Your task to perform on an android device: Go to notification settings Image 0: 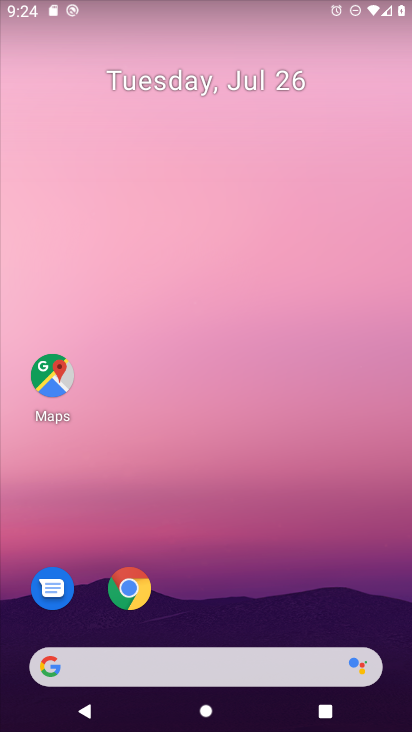
Step 0: drag from (165, 685) to (272, 114)
Your task to perform on an android device: Go to notification settings Image 1: 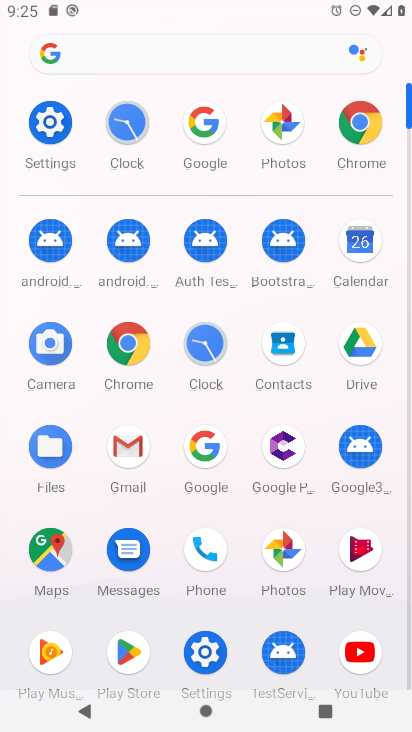
Step 1: click (58, 133)
Your task to perform on an android device: Go to notification settings Image 2: 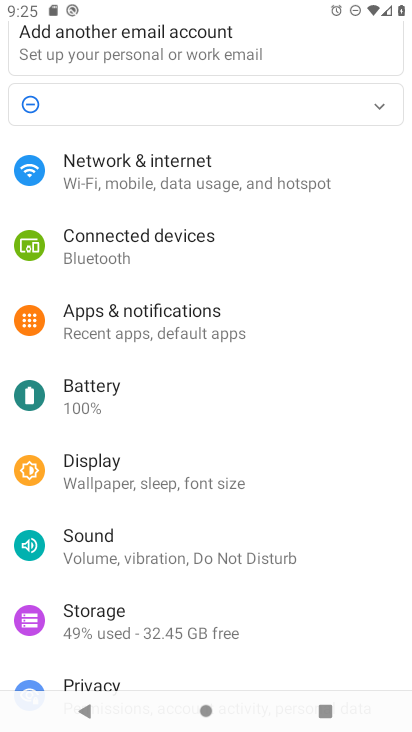
Step 2: click (185, 335)
Your task to perform on an android device: Go to notification settings Image 3: 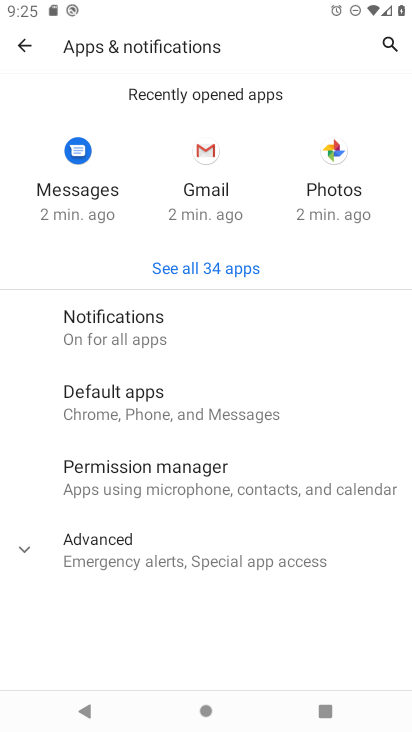
Step 3: click (185, 335)
Your task to perform on an android device: Go to notification settings Image 4: 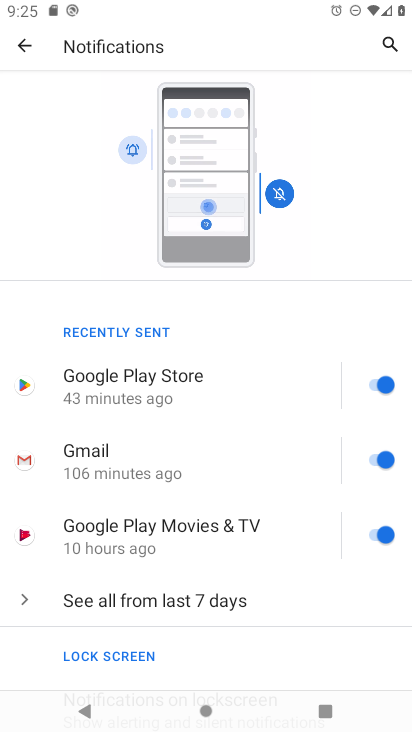
Step 4: task complete